Your task to perform on an android device: Open Maps and search for coffee Image 0: 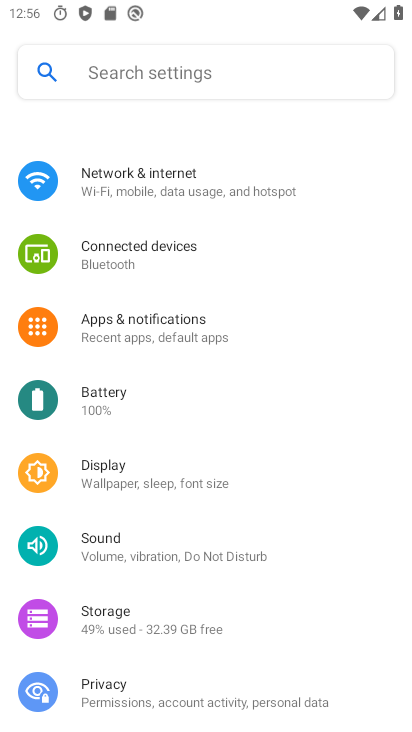
Step 0: press home button
Your task to perform on an android device: Open Maps and search for coffee Image 1: 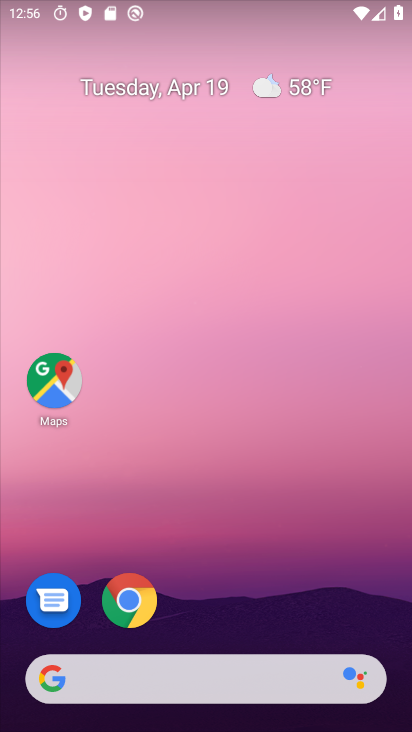
Step 1: drag from (244, 658) to (380, 294)
Your task to perform on an android device: Open Maps and search for coffee Image 2: 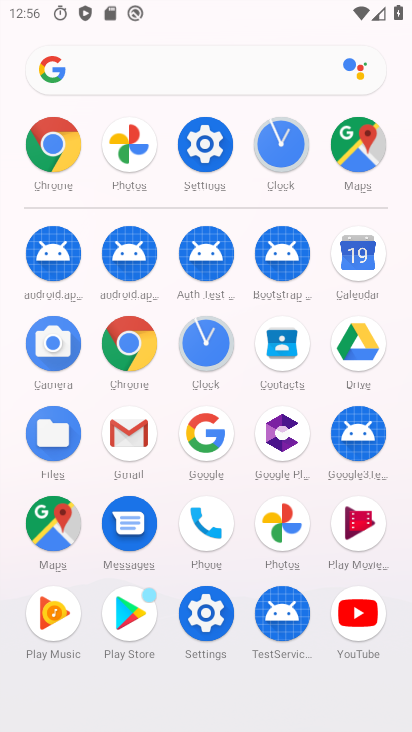
Step 2: click (372, 165)
Your task to perform on an android device: Open Maps and search for coffee Image 3: 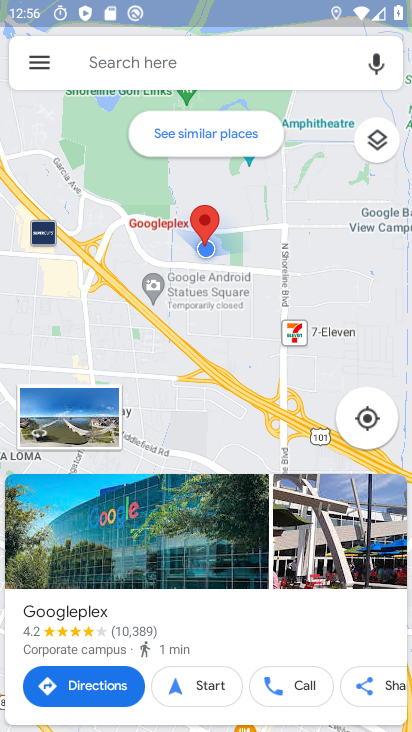
Step 3: click (186, 58)
Your task to perform on an android device: Open Maps and search for coffee Image 4: 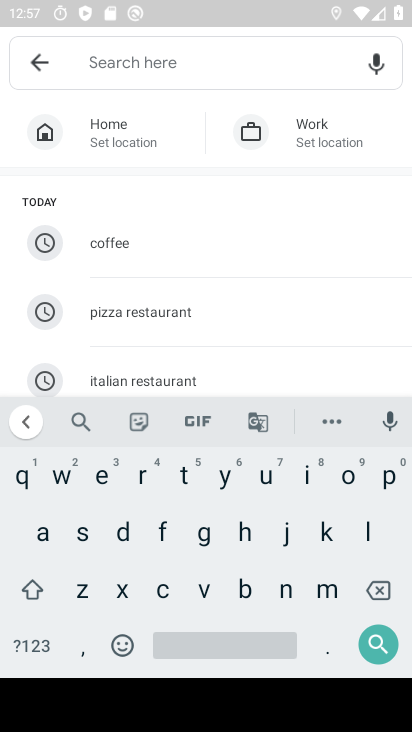
Step 4: click (141, 230)
Your task to perform on an android device: Open Maps and search for coffee Image 5: 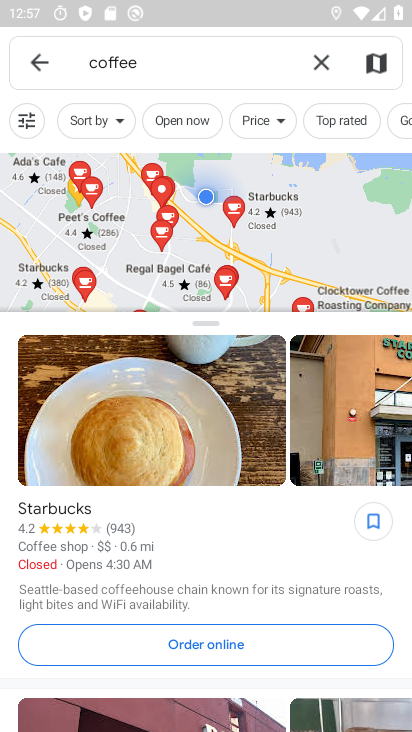
Step 5: task complete